Your task to perform on an android device: Go to Wikipedia Image 0: 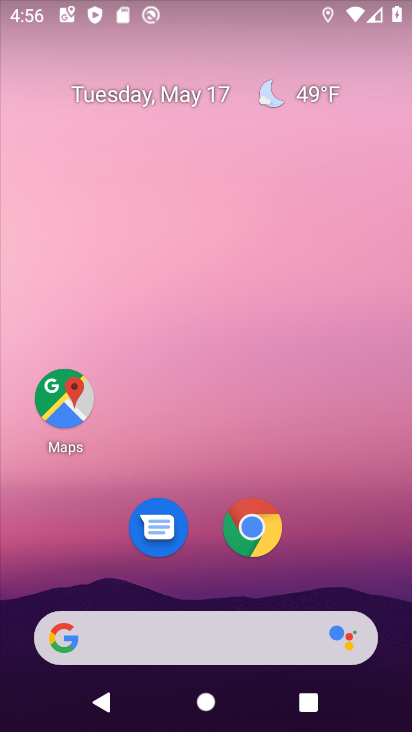
Step 0: drag from (317, 504) to (261, 13)
Your task to perform on an android device: Go to Wikipedia Image 1: 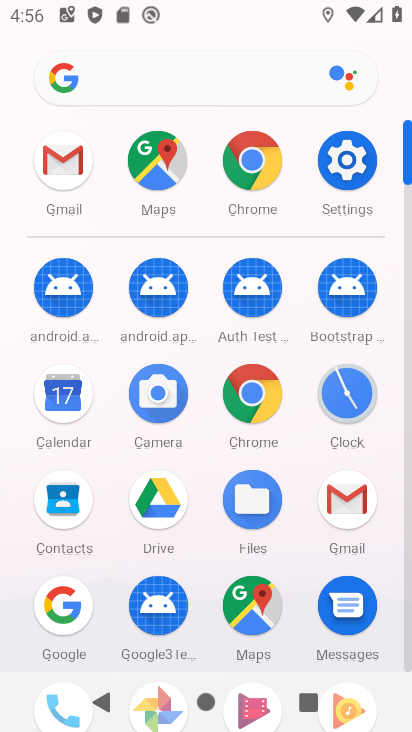
Step 1: drag from (8, 555) to (17, 184)
Your task to perform on an android device: Go to Wikipedia Image 2: 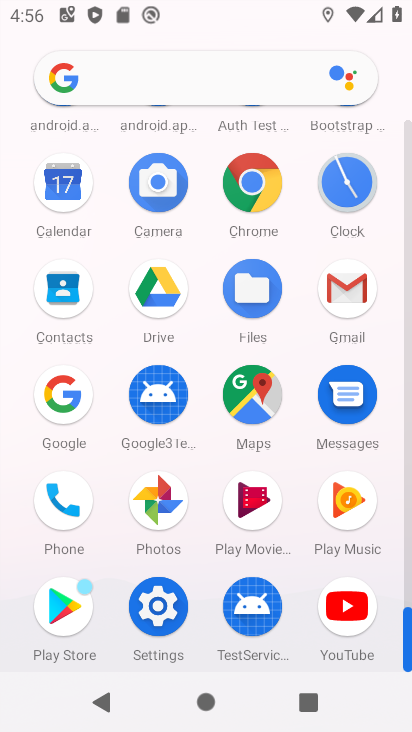
Step 2: click (156, 617)
Your task to perform on an android device: Go to Wikipedia Image 3: 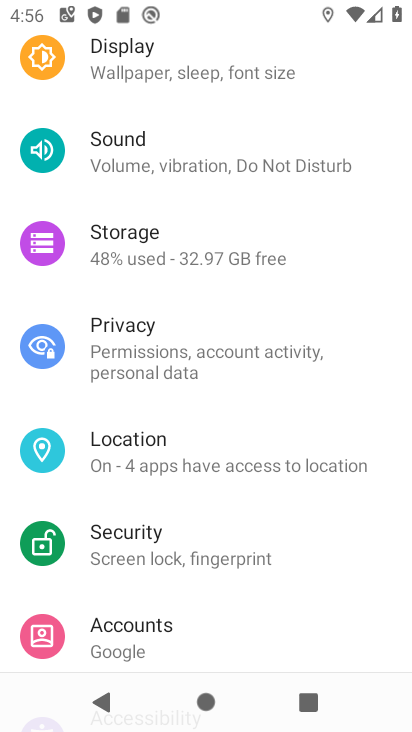
Step 3: press back button
Your task to perform on an android device: Go to Wikipedia Image 4: 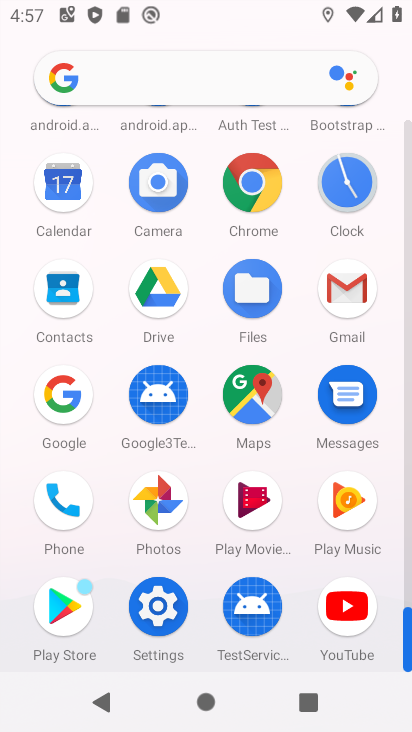
Step 4: click (247, 175)
Your task to perform on an android device: Go to Wikipedia Image 5: 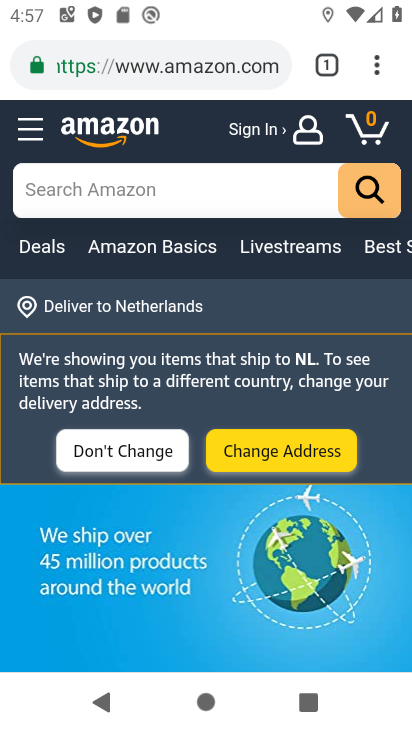
Step 5: click (208, 58)
Your task to perform on an android device: Go to Wikipedia Image 6: 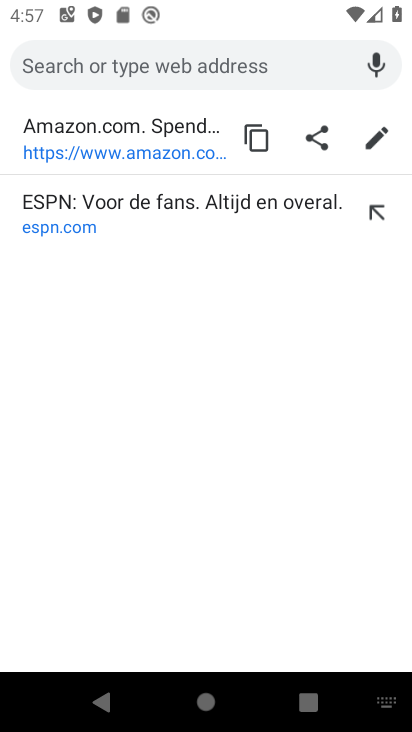
Step 6: type "Wikipedia"
Your task to perform on an android device: Go to Wikipedia Image 7: 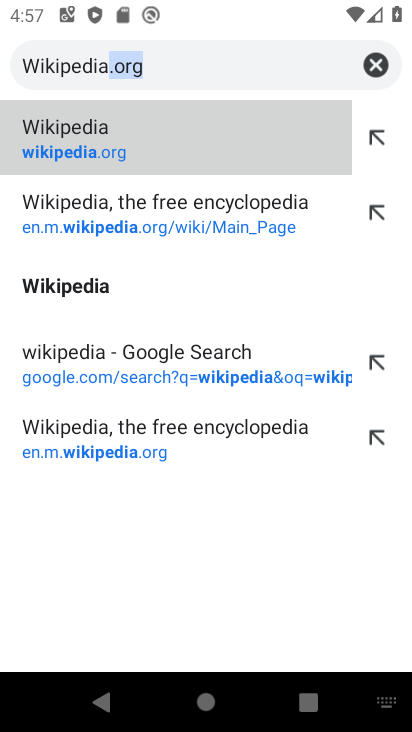
Step 7: type ""
Your task to perform on an android device: Go to Wikipedia Image 8: 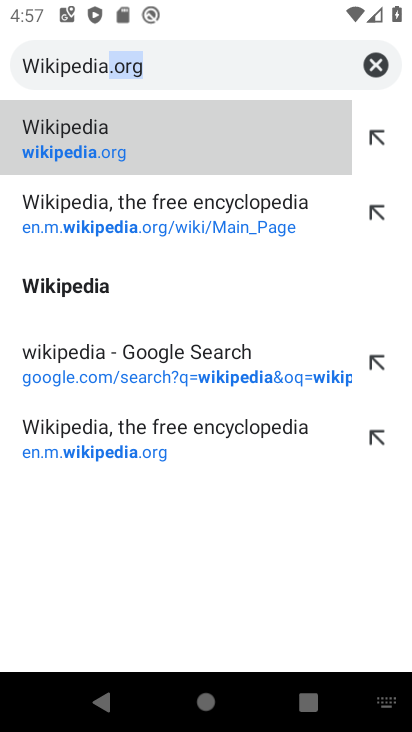
Step 8: click (149, 119)
Your task to perform on an android device: Go to Wikipedia Image 9: 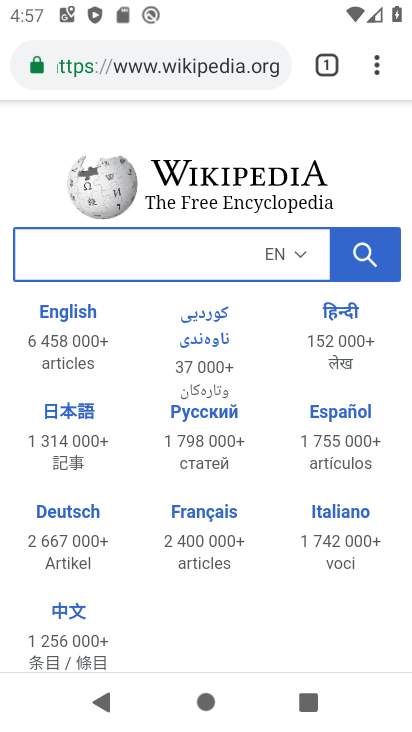
Step 9: task complete